Your task to perform on an android device: add a contact in the contacts app Image 0: 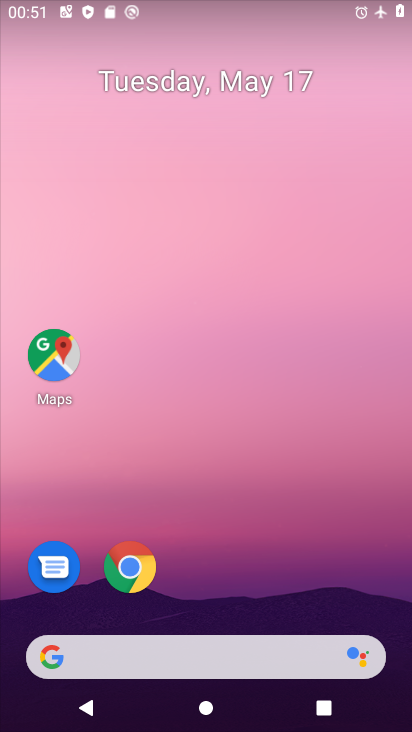
Step 0: drag from (300, 577) to (221, 101)
Your task to perform on an android device: add a contact in the contacts app Image 1: 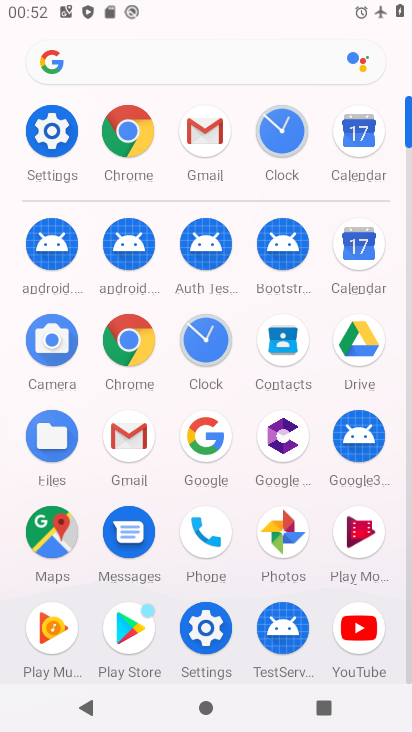
Step 1: click (281, 340)
Your task to perform on an android device: add a contact in the contacts app Image 2: 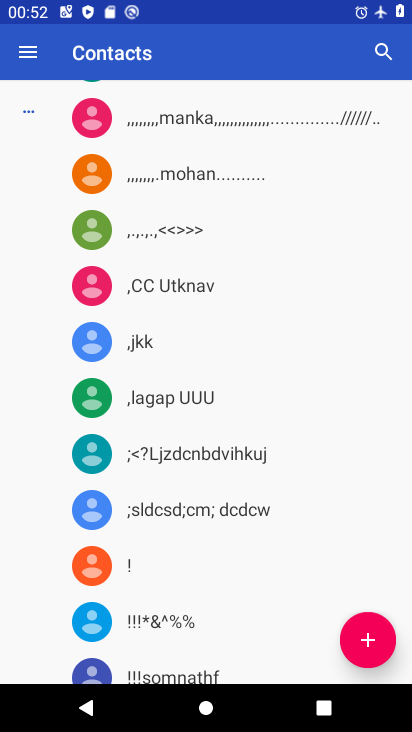
Step 2: click (356, 641)
Your task to perform on an android device: add a contact in the contacts app Image 3: 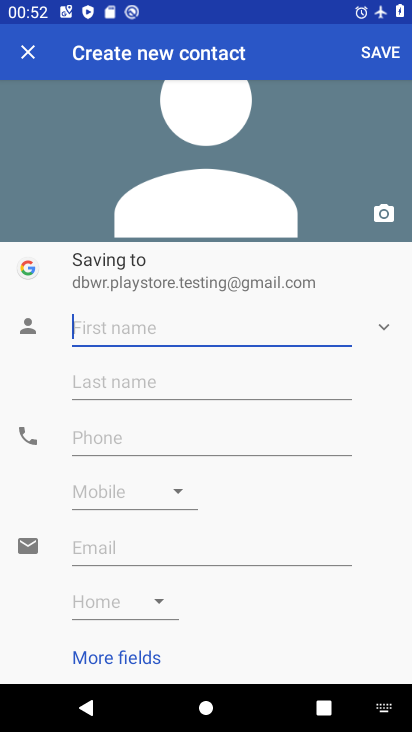
Step 3: type "esfdfg"
Your task to perform on an android device: add a contact in the contacts app Image 4: 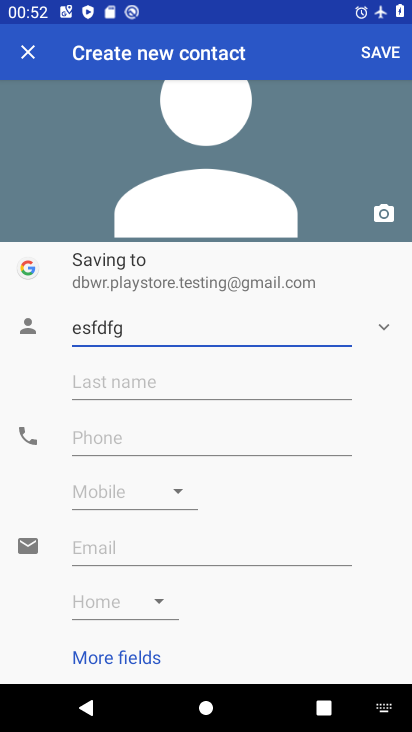
Step 4: click (98, 426)
Your task to perform on an android device: add a contact in the contacts app Image 5: 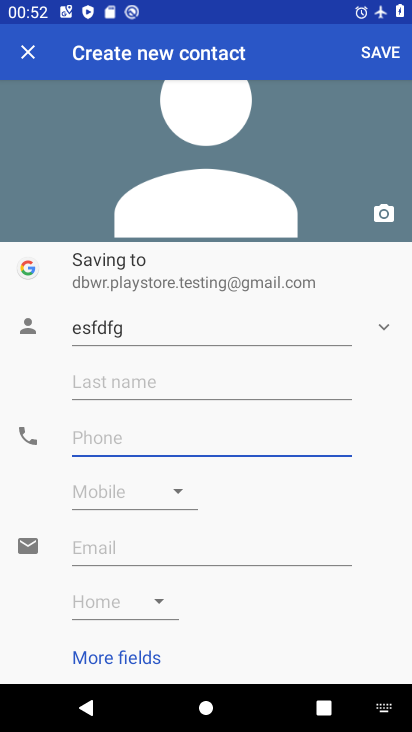
Step 5: type "rty"
Your task to perform on an android device: add a contact in the contacts app Image 6: 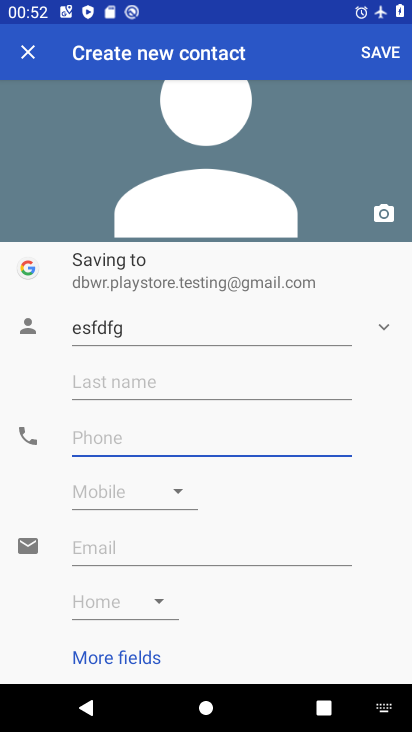
Step 6: type "676"
Your task to perform on an android device: add a contact in the contacts app Image 7: 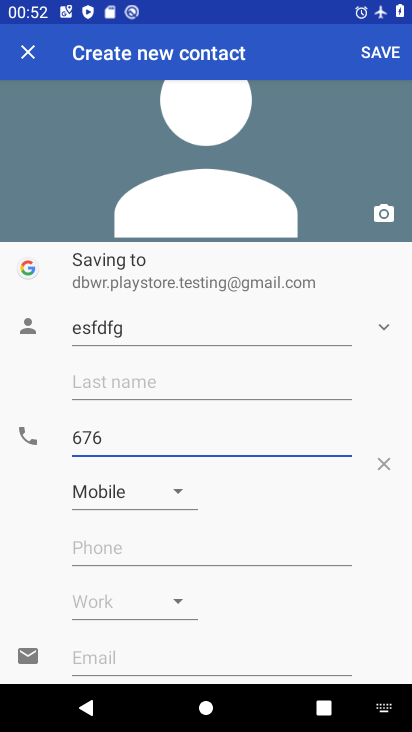
Step 7: click (378, 52)
Your task to perform on an android device: add a contact in the contacts app Image 8: 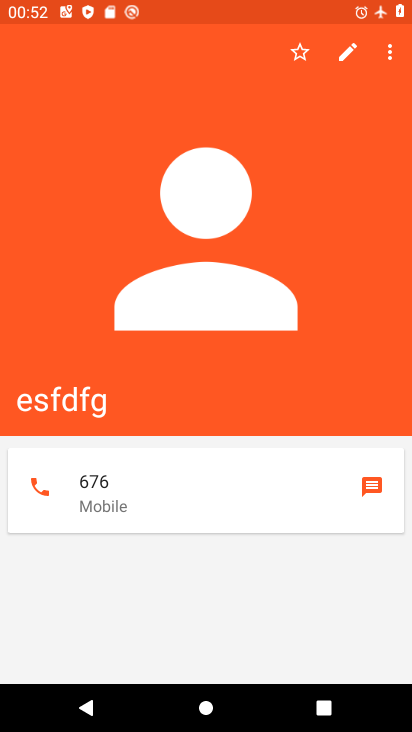
Step 8: task complete